Your task to perform on an android device: check google app version Image 0: 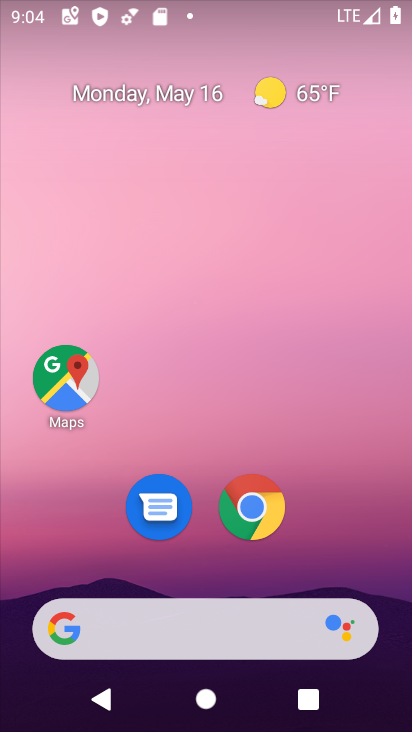
Step 0: drag from (199, 569) to (315, 10)
Your task to perform on an android device: check google app version Image 1: 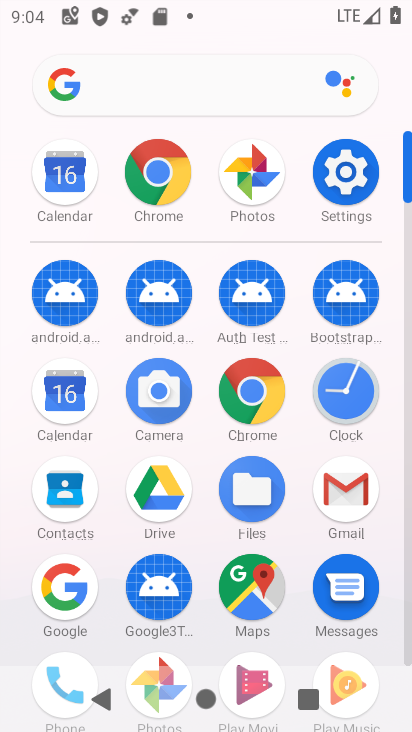
Step 1: click (58, 590)
Your task to perform on an android device: check google app version Image 2: 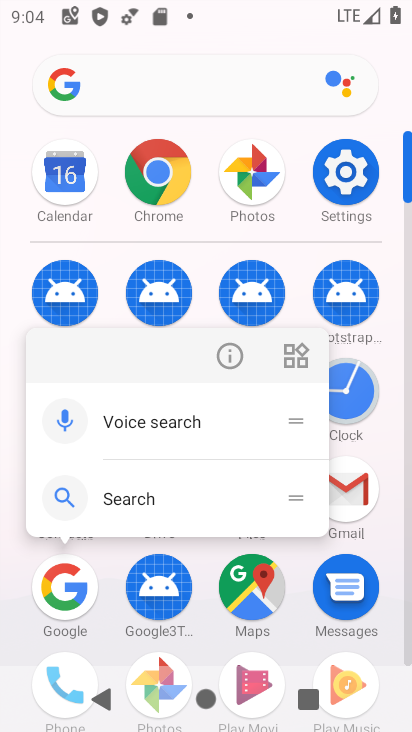
Step 2: click (224, 352)
Your task to perform on an android device: check google app version Image 3: 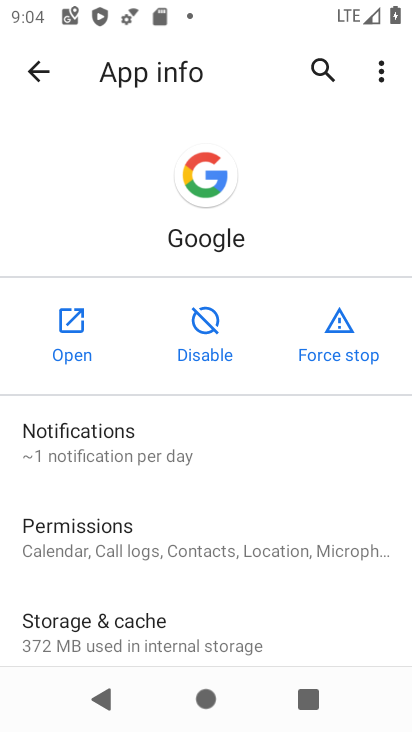
Step 3: drag from (300, 532) to (276, 166)
Your task to perform on an android device: check google app version Image 4: 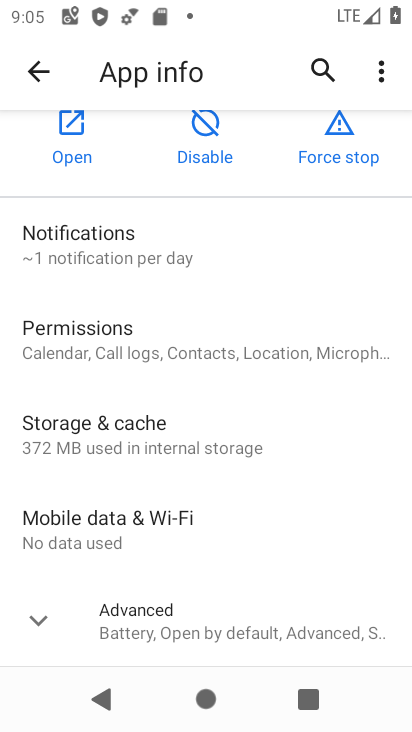
Step 4: drag from (255, 624) to (232, 243)
Your task to perform on an android device: check google app version Image 5: 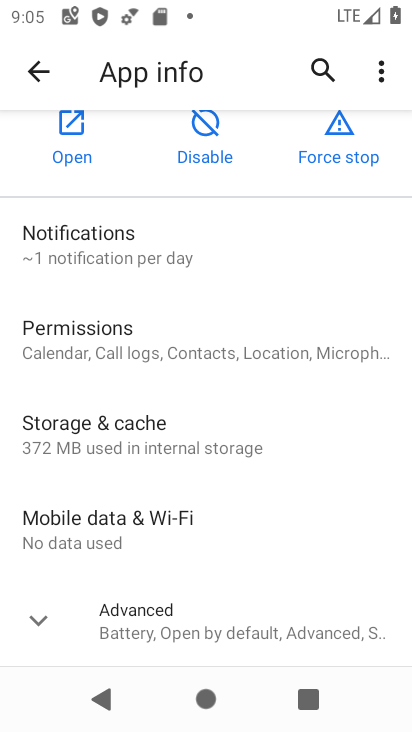
Step 5: click (224, 634)
Your task to perform on an android device: check google app version Image 6: 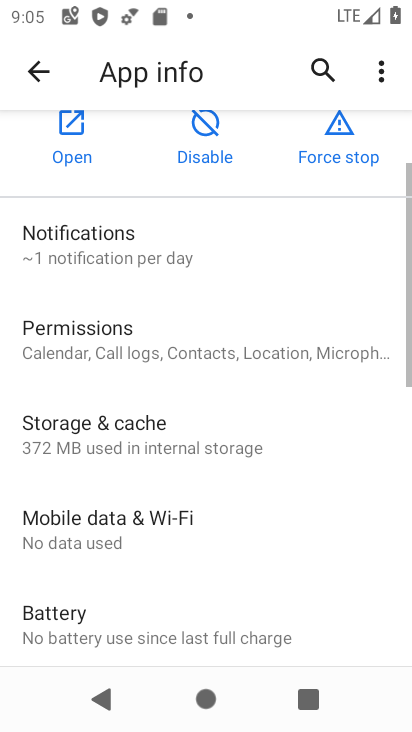
Step 6: task complete